Your task to perform on an android device: Go to Yahoo.com Image 0: 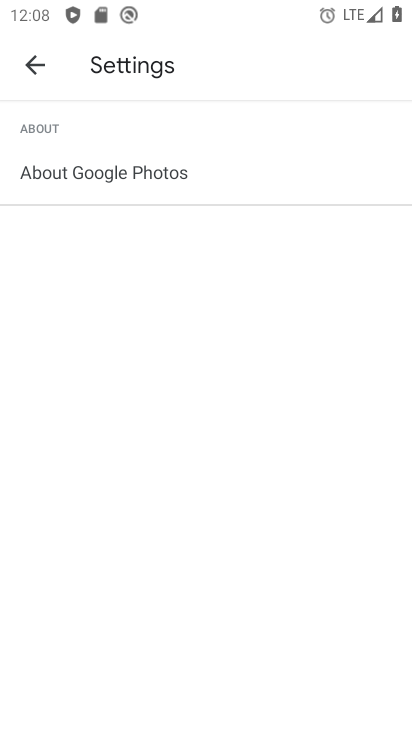
Step 0: press home button
Your task to perform on an android device: Go to Yahoo.com Image 1: 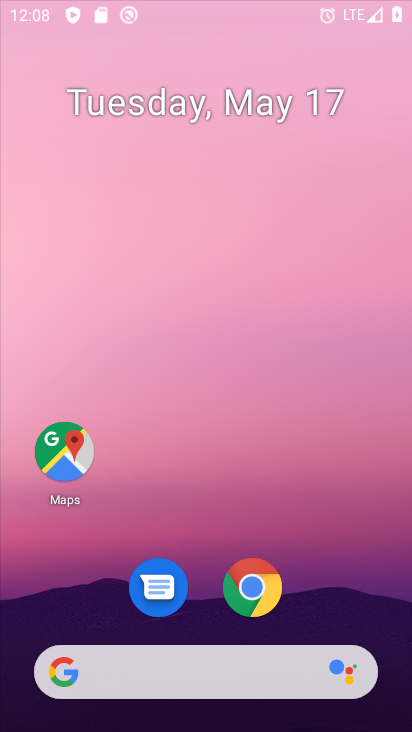
Step 1: drag from (388, 662) to (332, 63)
Your task to perform on an android device: Go to Yahoo.com Image 2: 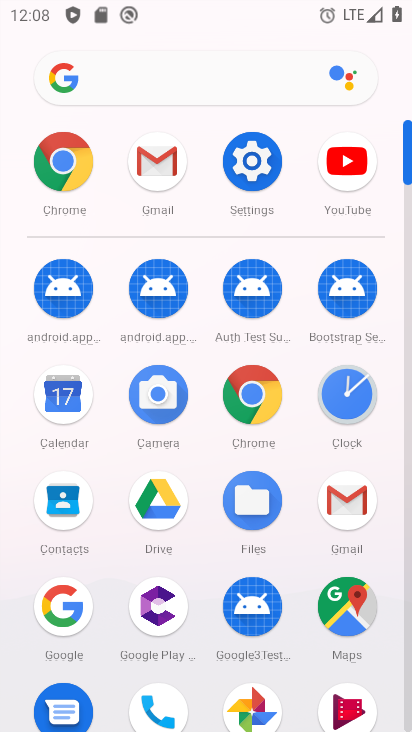
Step 2: click (257, 399)
Your task to perform on an android device: Go to Yahoo.com Image 3: 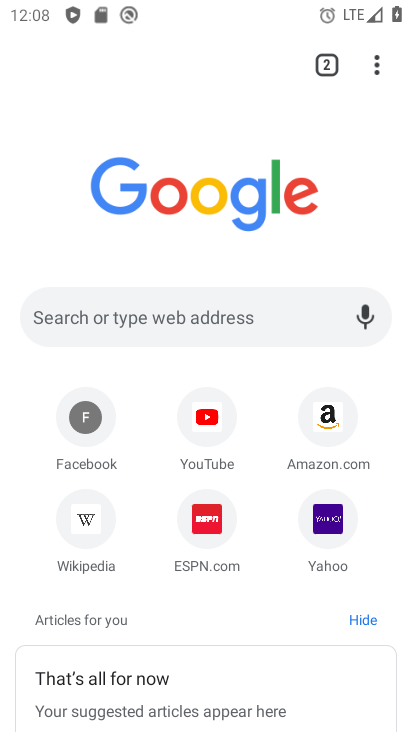
Step 3: click (335, 523)
Your task to perform on an android device: Go to Yahoo.com Image 4: 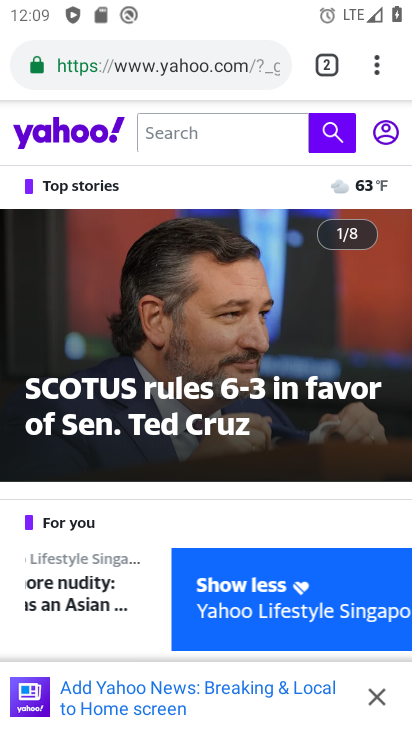
Step 4: task complete